Your task to perform on an android device: turn pop-ups off in chrome Image 0: 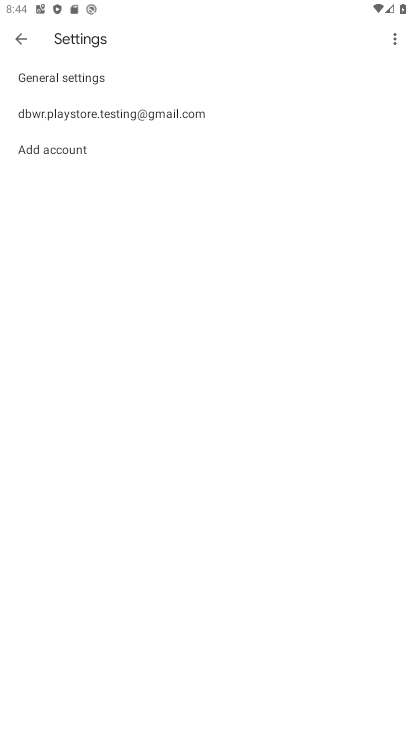
Step 0: press home button
Your task to perform on an android device: turn pop-ups off in chrome Image 1: 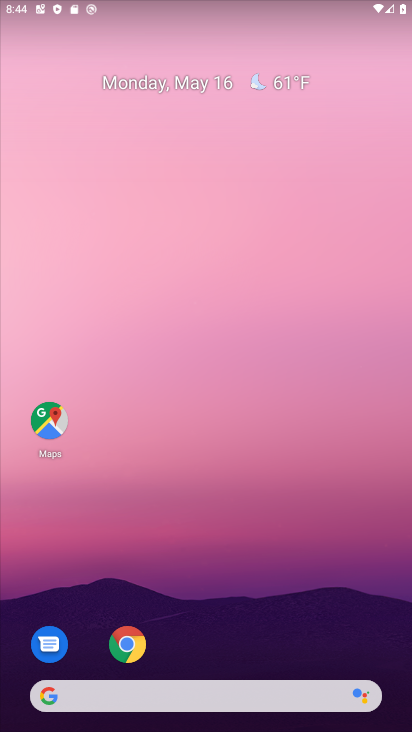
Step 1: click (128, 646)
Your task to perform on an android device: turn pop-ups off in chrome Image 2: 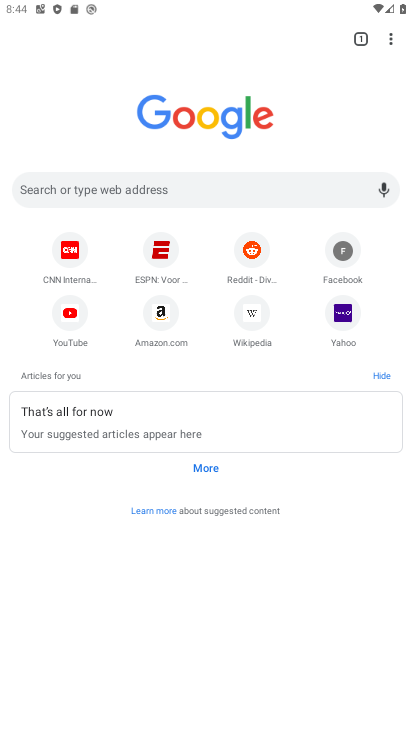
Step 2: click (386, 37)
Your task to perform on an android device: turn pop-ups off in chrome Image 3: 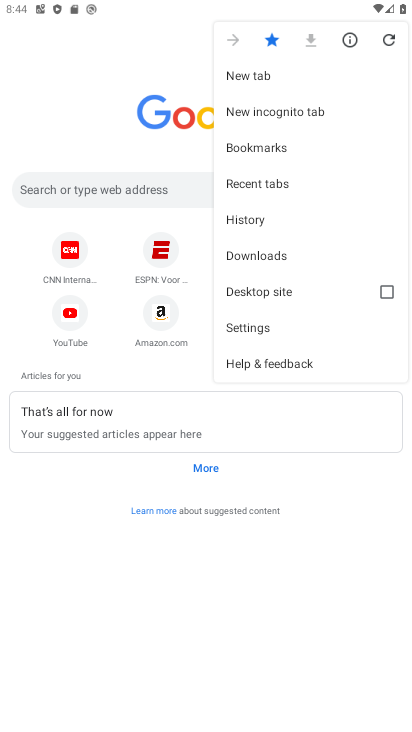
Step 3: click (250, 330)
Your task to perform on an android device: turn pop-ups off in chrome Image 4: 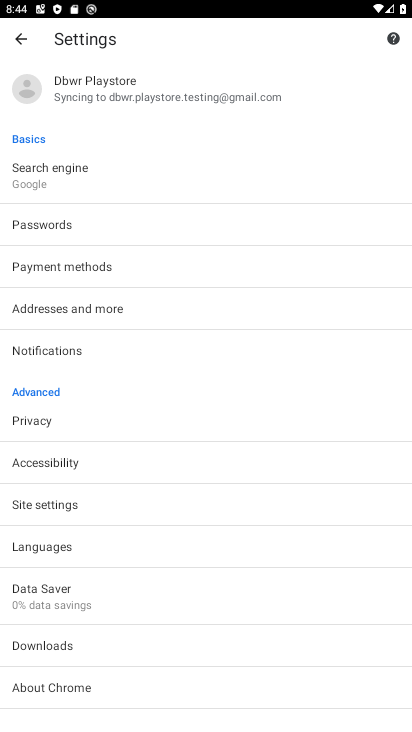
Step 4: click (80, 507)
Your task to perform on an android device: turn pop-ups off in chrome Image 5: 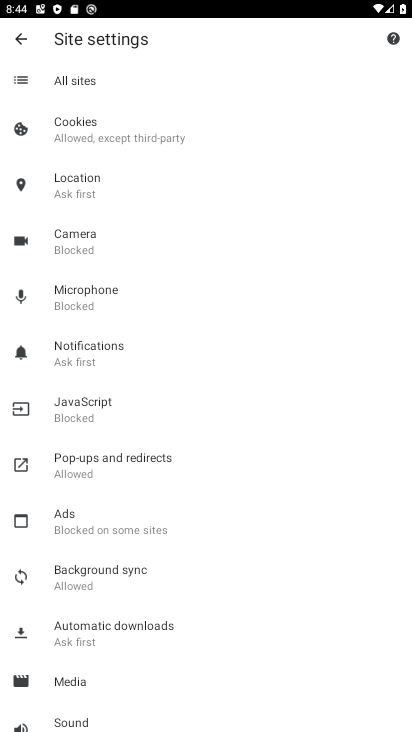
Step 5: click (97, 471)
Your task to perform on an android device: turn pop-ups off in chrome Image 6: 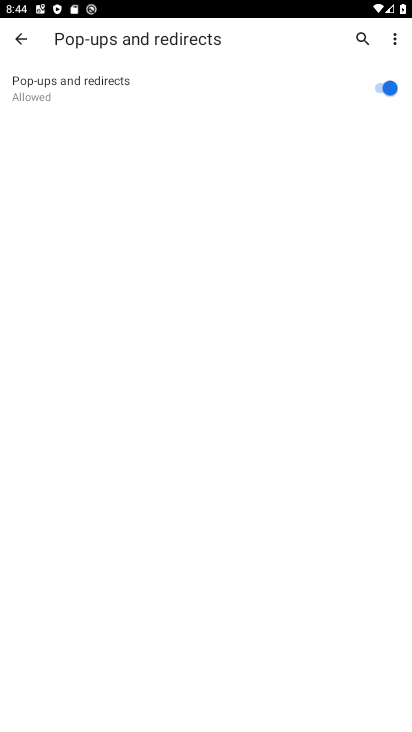
Step 6: click (378, 89)
Your task to perform on an android device: turn pop-ups off in chrome Image 7: 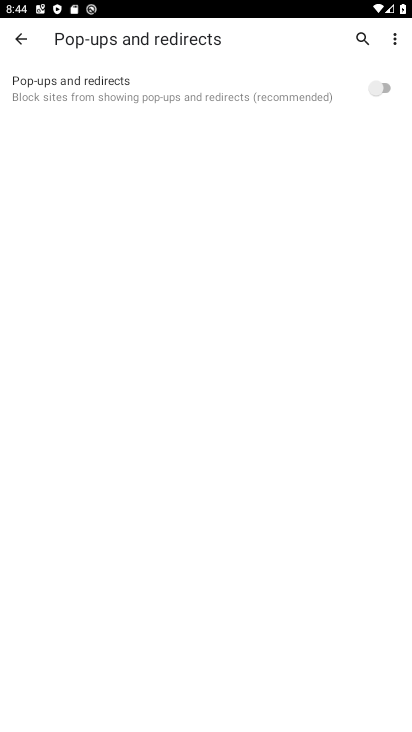
Step 7: task complete